Your task to perform on an android device: set the stopwatch Image 0: 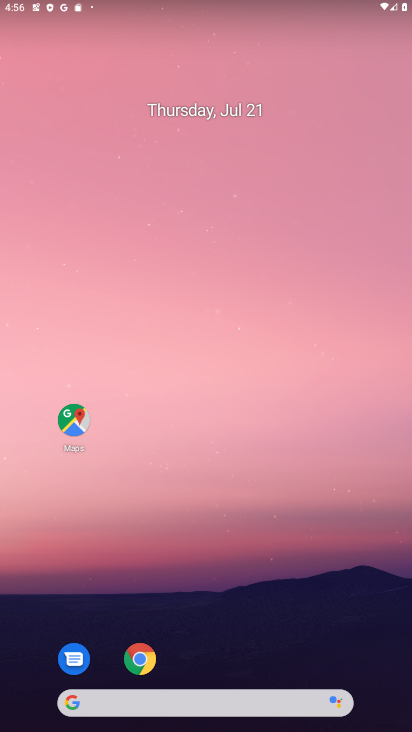
Step 0: drag from (261, 618) to (227, 134)
Your task to perform on an android device: set the stopwatch Image 1: 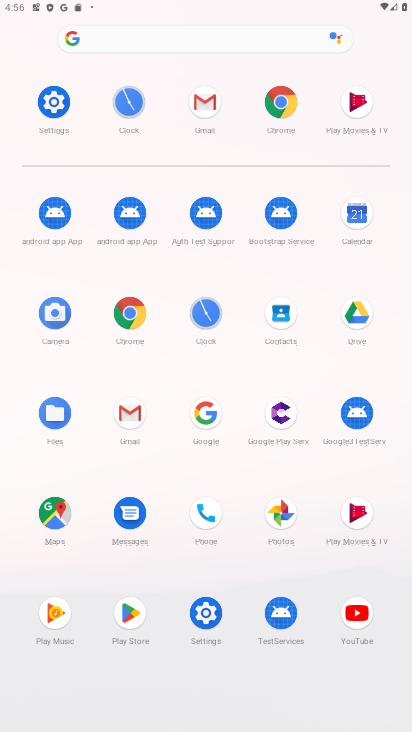
Step 1: click (127, 92)
Your task to perform on an android device: set the stopwatch Image 2: 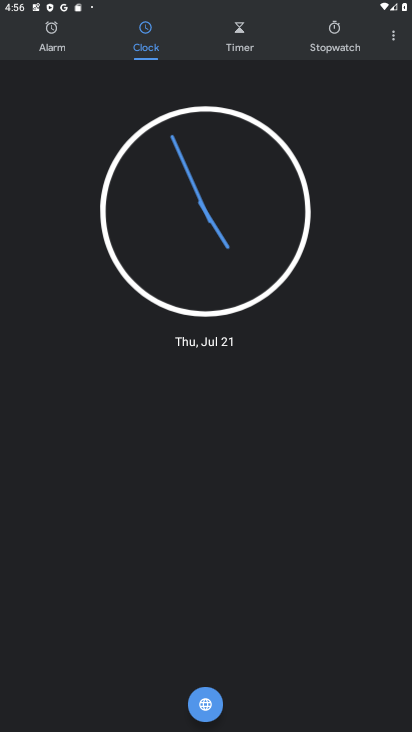
Step 2: click (344, 39)
Your task to perform on an android device: set the stopwatch Image 3: 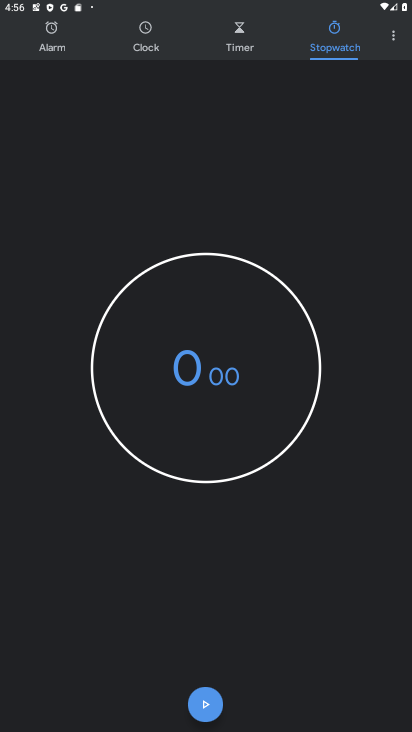
Step 3: task complete